Your task to perform on an android device: Search for usb-c on target.com, select the first entry, add it to the cart, then select checkout. Image 0: 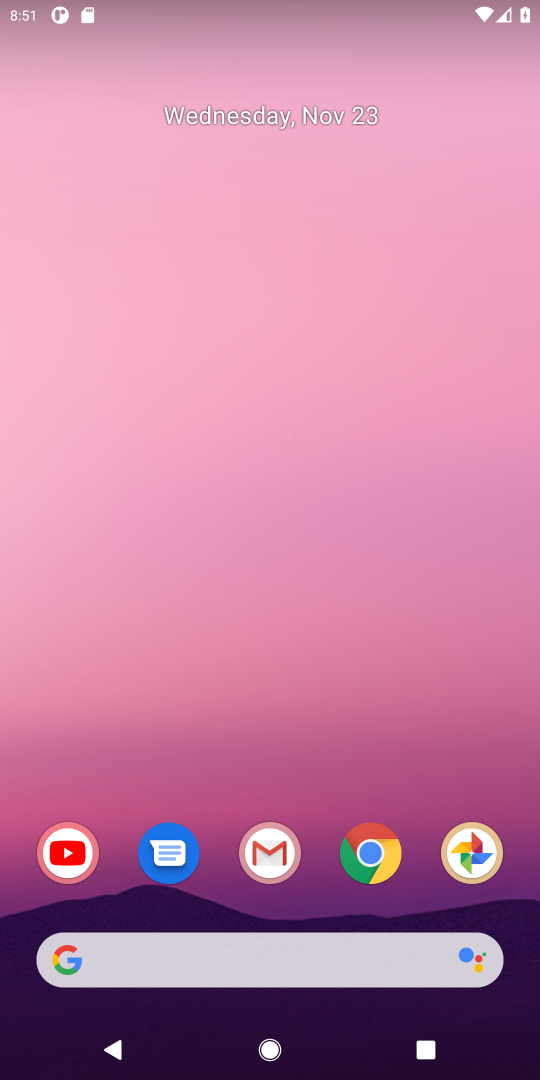
Step 0: click (360, 859)
Your task to perform on an android device: Search for usb-c on target.com, select the first entry, add it to the cart, then select checkout. Image 1: 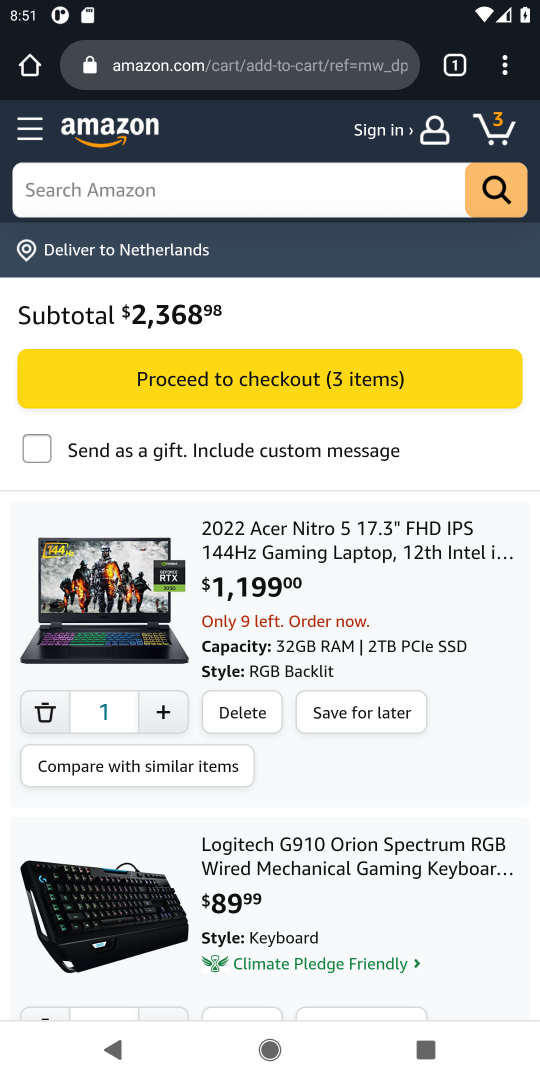
Step 1: click (229, 56)
Your task to perform on an android device: Search for usb-c on target.com, select the first entry, add it to the cart, then select checkout. Image 2: 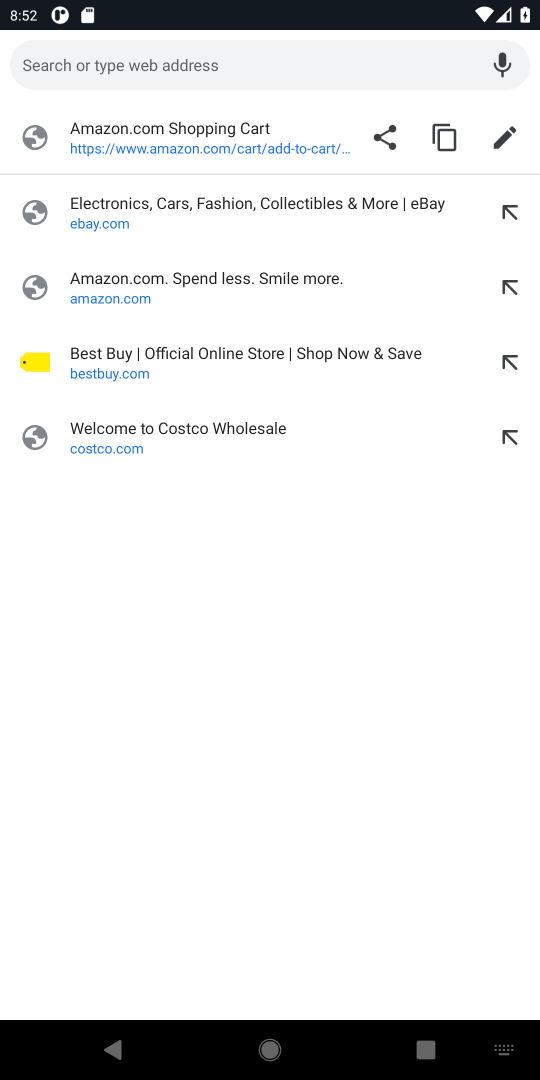
Step 2: type "target.com"
Your task to perform on an android device: Search for usb-c on target.com, select the first entry, add it to the cart, then select checkout. Image 3: 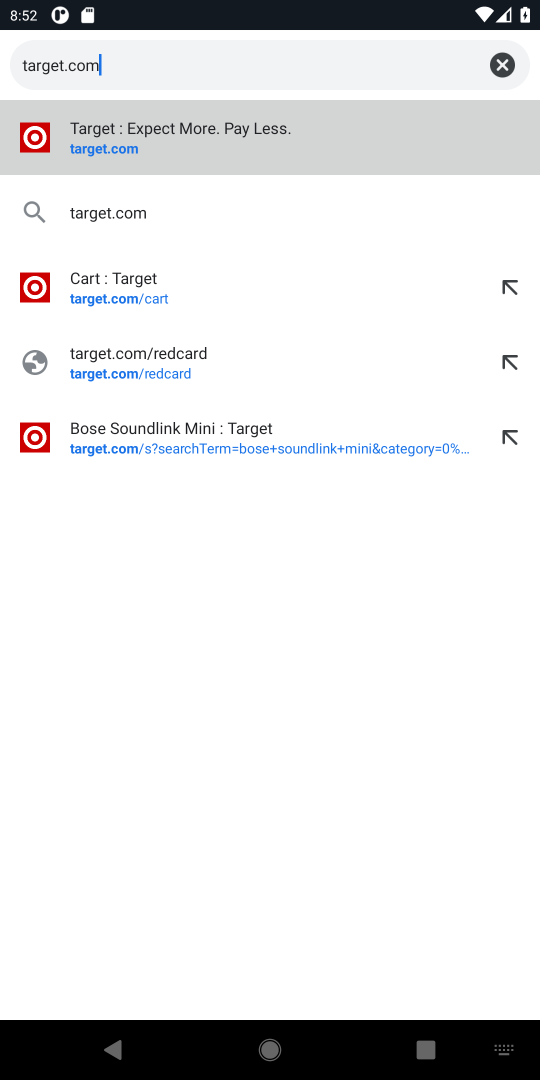
Step 3: click (84, 143)
Your task to perform on an android device: Search for usb-c on target.com, select the first entry, add it to the cart, then select checkout. Image 4: 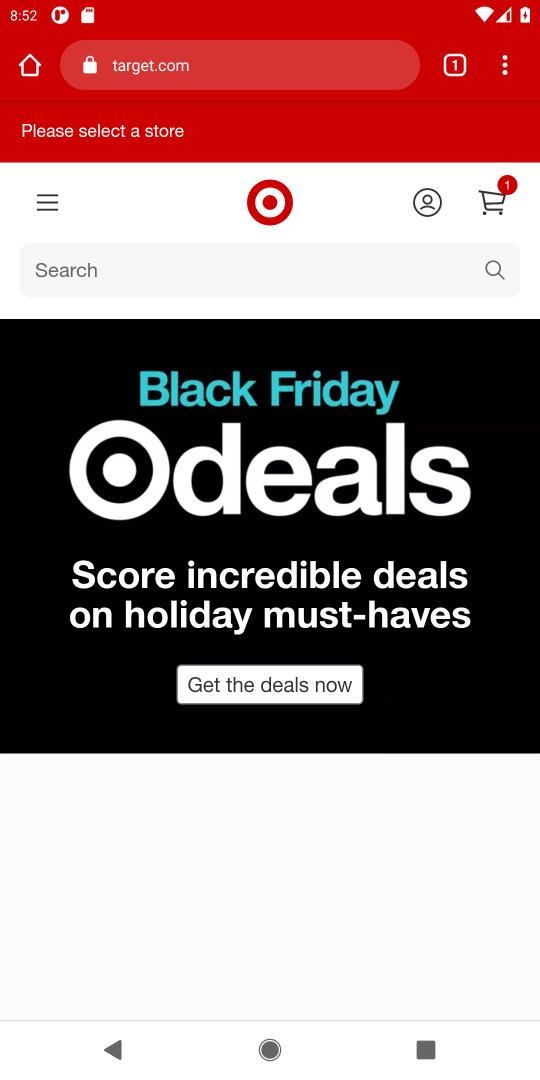
Step 4: click (496, 269)
Your task to perform on an android device: Search for usb-c on target.com, select the first entry, add it to the cart, then select checkout. Image 5: 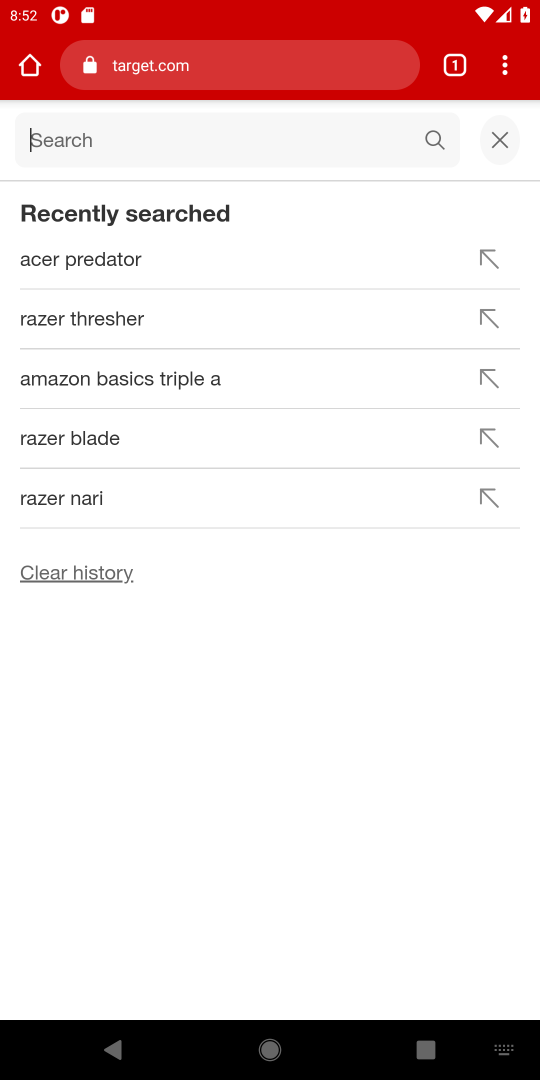
Step 5: type "usb-c"
Your task to perform on an android device: Search for usb-c on target.com, select the first entry, add it to the cart, then select checkout. Image 6: 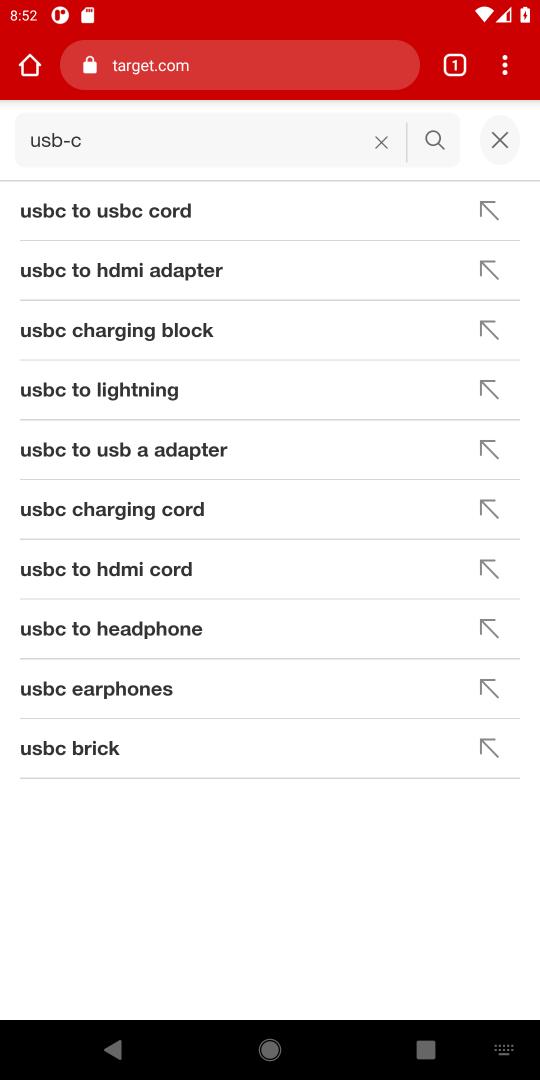
Step 6: click (430, 140)
Your task to perform on an android device: Search for usb-c on target.com, select the first entry, add it to the cart, then select checkout. Image 7: 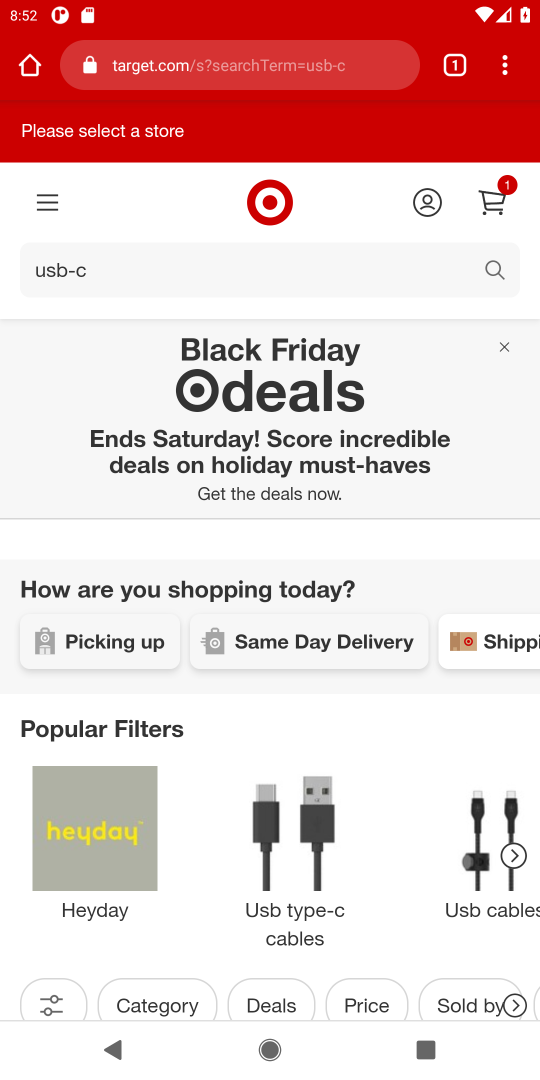
Step 7: drag from (195, 698) to (185, 363)
Your task to perform on an android device: Search for usb-c on target.com, select the first entry, add it to the cart, then select checkout. Image 8: 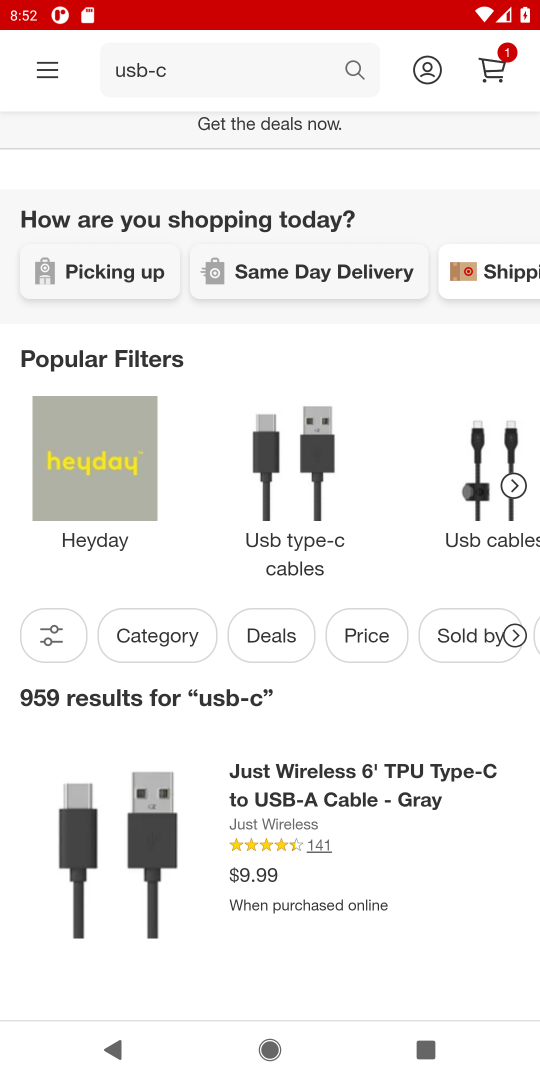
Step 8: drag from (149, 693) to (140, 446)
Your task to perform on an android device: Search for usb-c on target.com, select the first entry, add it to the cart, then select checkout. Image 9: 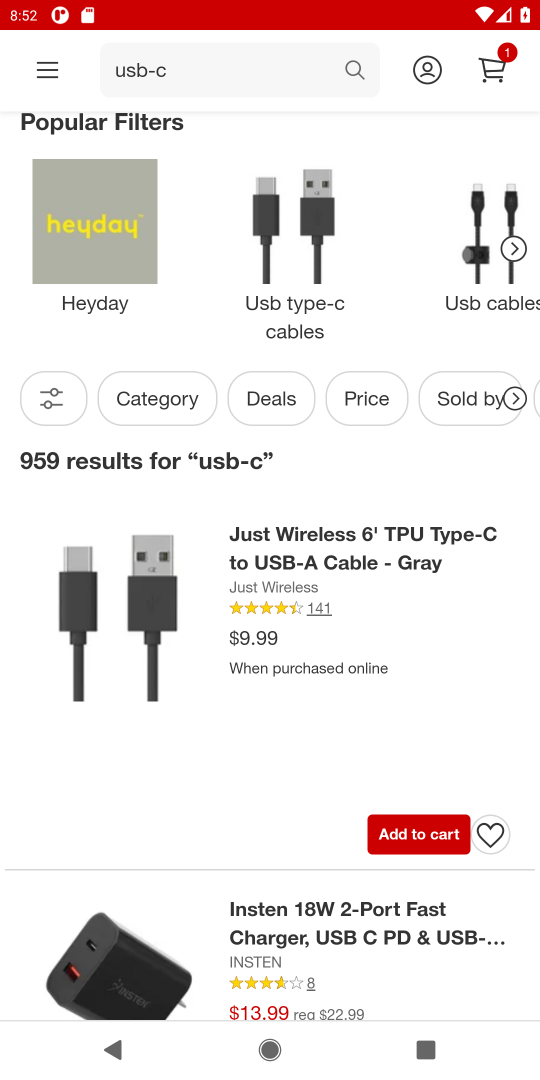
Step 9: drag from (145, 677) to (149, 474)
Your task to perform on an android device: Search for usb-c on target.com, select the first entry, add it to the cart, then select checkout. Image 10: 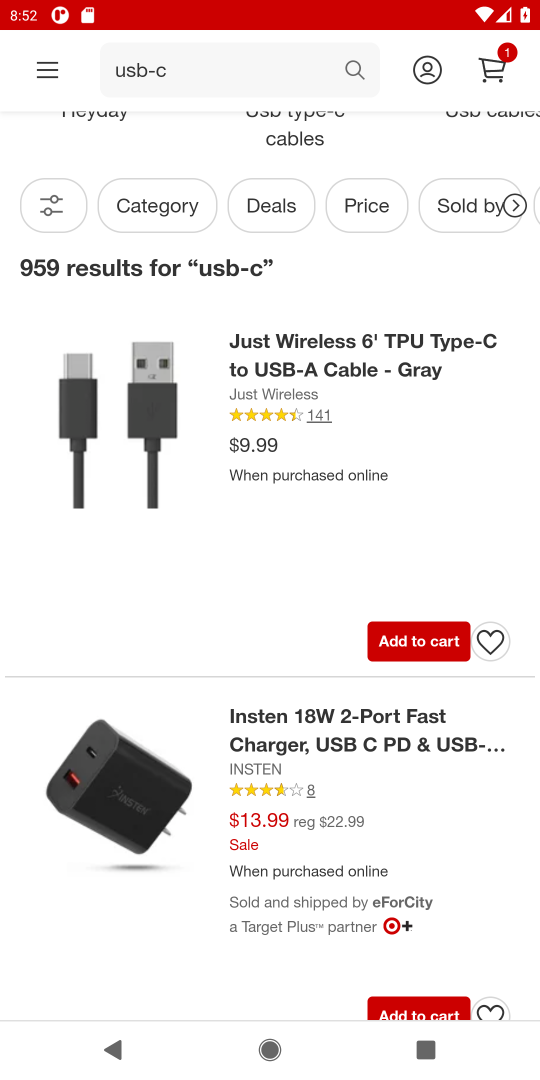
Step 10: click (95, 440)
Your task to perform on an android device: Search for usb-c on target.com, select the first entry, add it to the cart, then select checkout. Image 11: 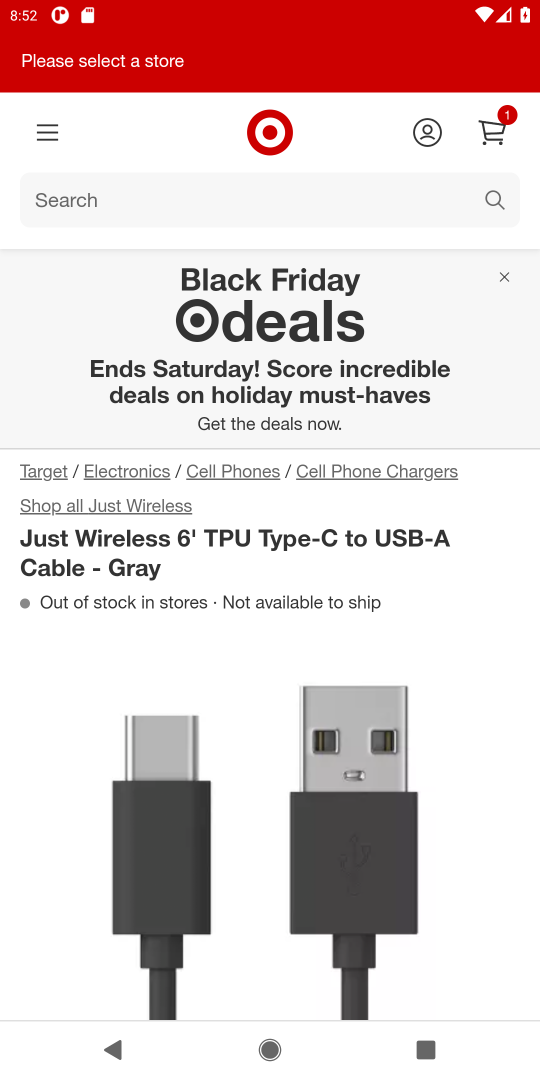
Step 11: task complete